Your task to perform on an android device: When is my next meeting? Image 0: 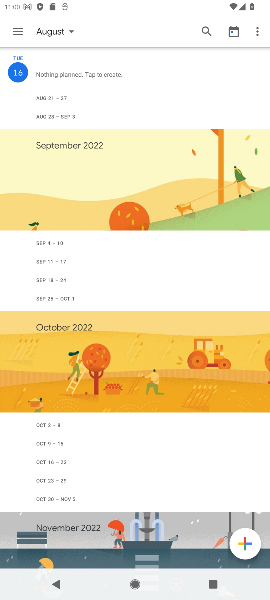
Step 0: task complete